Your task to perform on an android device: Open calendar and show me the first week of next month Image 0: 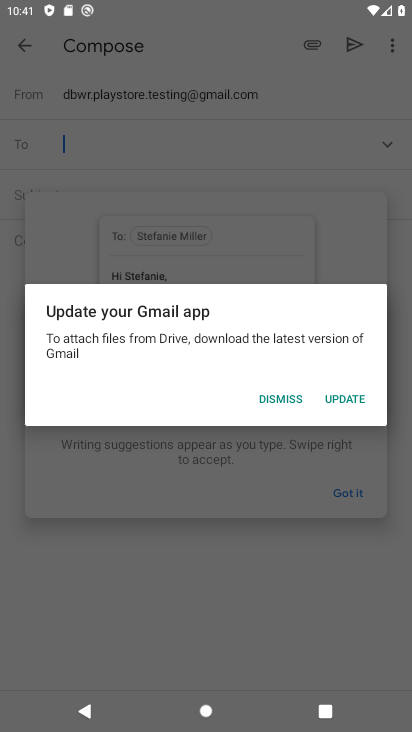
Step 0: press home button
Your task to perform on an android device: Open calendar and show me the first week of next month Image 1: 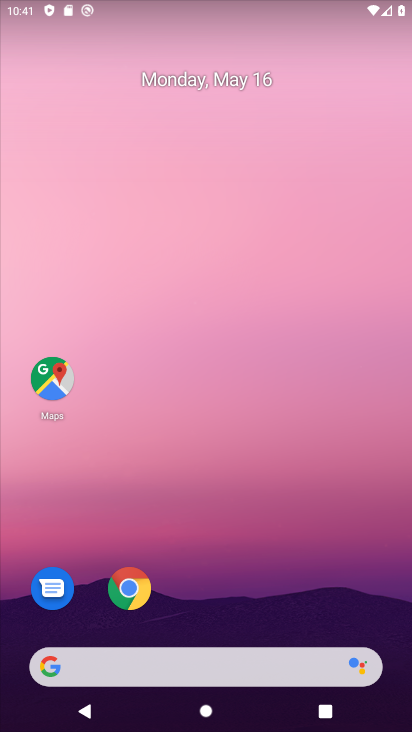
Step 1: drag from (216, 645) to (307, 166)
Your task to perform on an android device: Open calendar and show me the first week of next month Image 2: 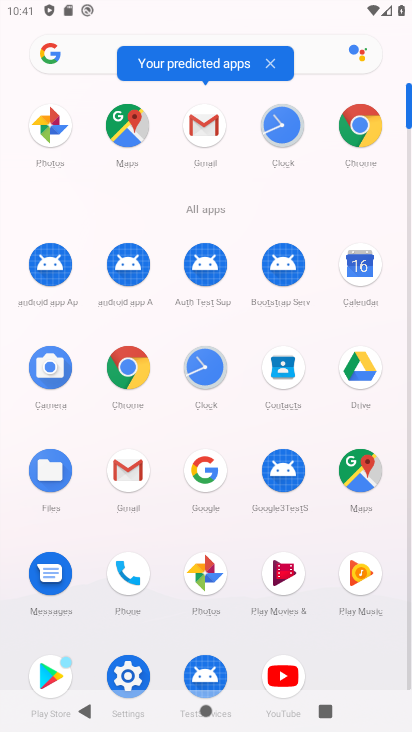
Step 2: click (363, 257)
Your task to perform on an android device: Open calendar and show me the first week of next month Image 3: 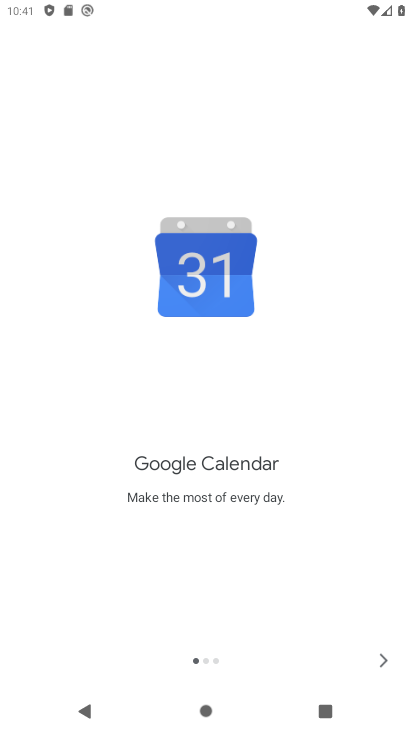
Step 3: click (392, 656)
Your task to perform on an android device: Open calendar and show me the first week of next month Image 4: 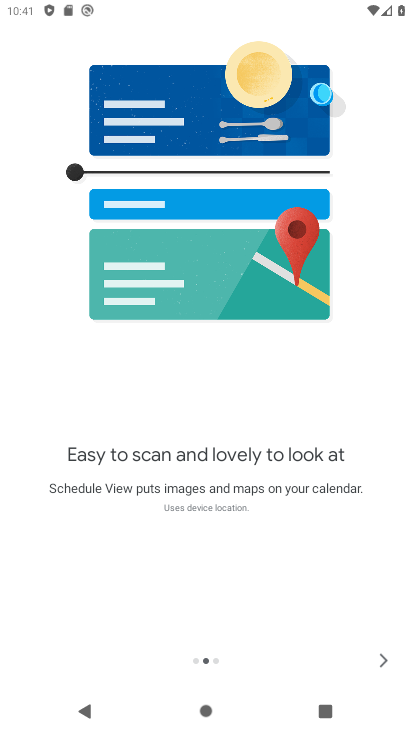
Step 4: click (392, 656)
Your task to perform on an android device: Open calendar and show me the first week of next month Image 5: 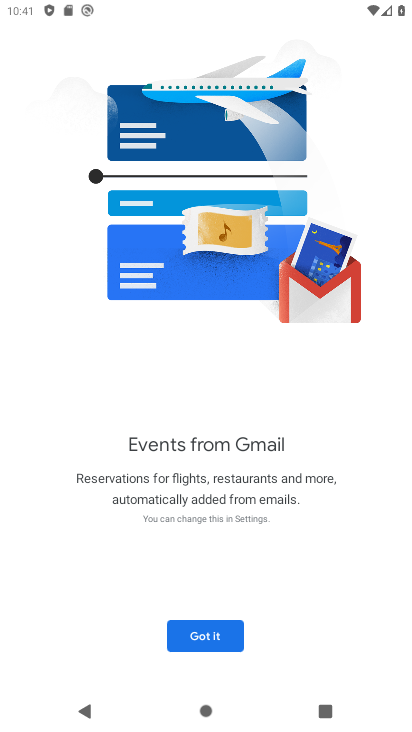
Step 5: click (197, 649)
Your task to perform on an android device: Open calendar and show me the first week of next month Image 6: 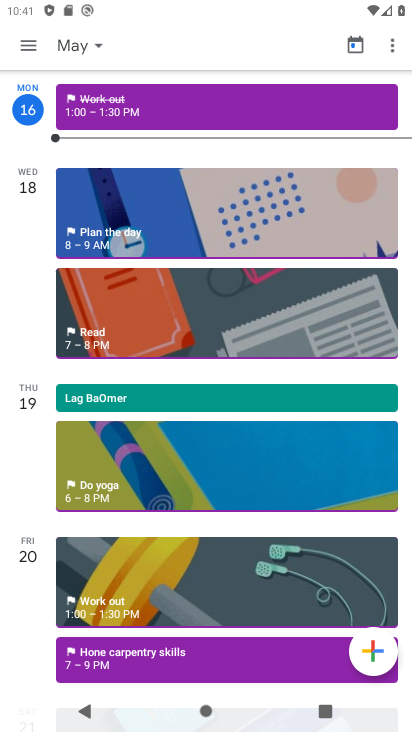
Step 6: click (63, 47)
Your task to perform on an android device: Open calendar and show me the first week of next month Image 7: 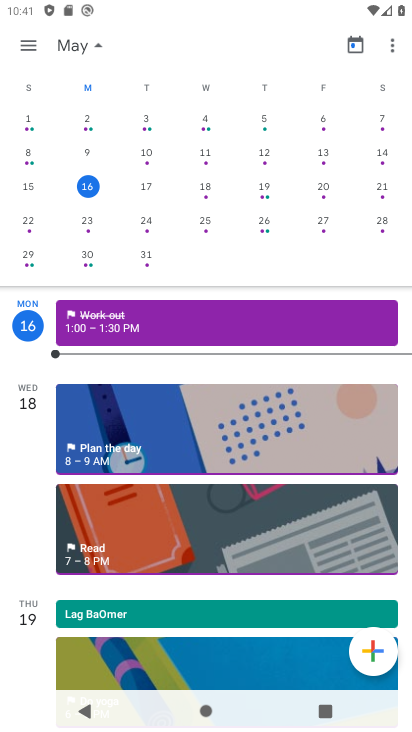
Step 7: drag from (387, 193) to (2, 187)
Your task to perform on an android device: Open calendar and show me the first week of next month Image 8: 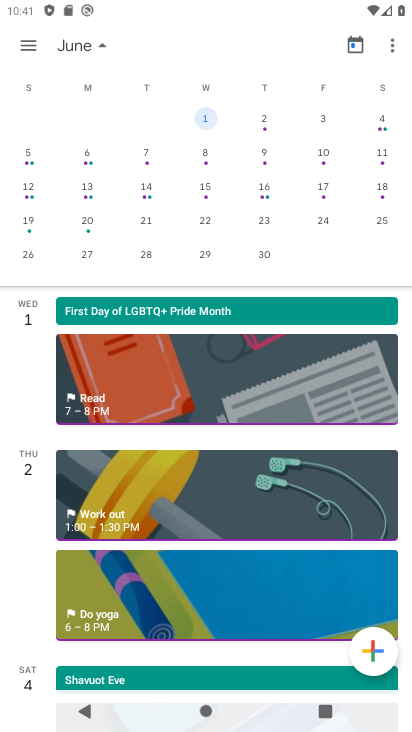
Step 8: click (26, 152)
Your task to perform on an android device: Open calendar and show me the first week of next month Image 9: 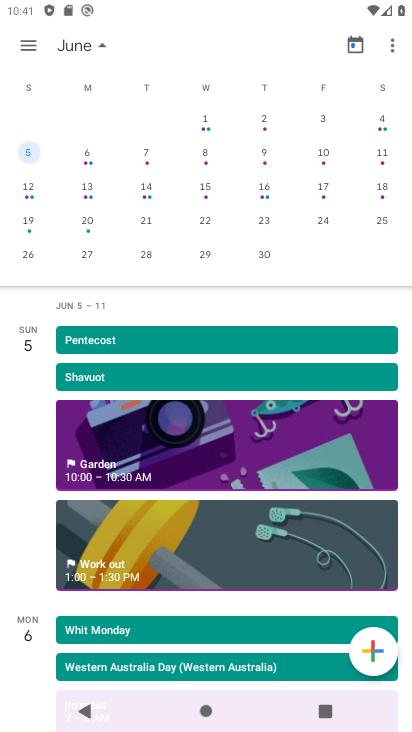
Step 9: click (43, 38)
Your task to perform on an android device: Open calendar and show me the first week of next month Image 10: 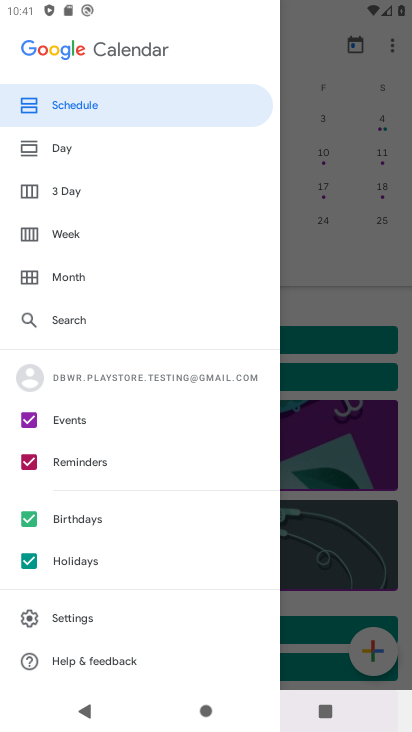
Step 10: click (88, 252)
Your task to perform on an android device: Open calendar and show me the first week of next month Image 11: 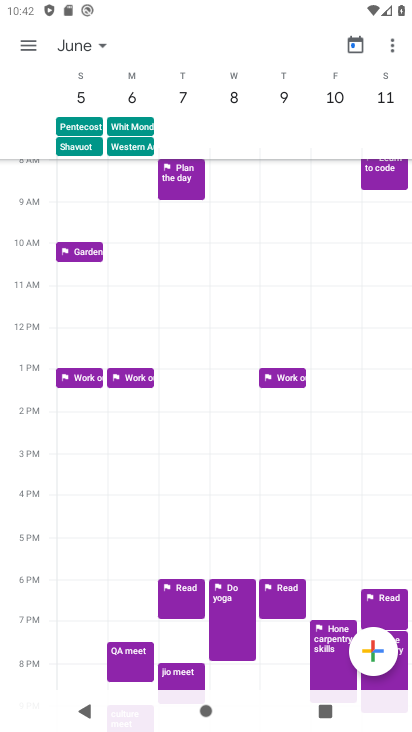
Step 11: task complete